Your task to perform on an android device: Show me productivity apps on the Play Store Image 0: 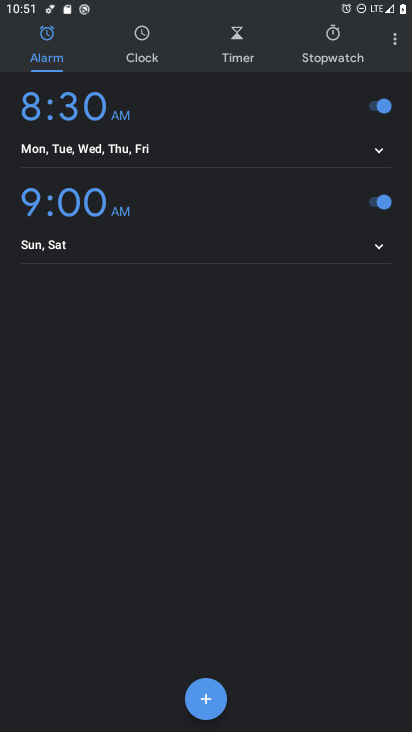
Step 0: press home button
Your task to perform on an android device: Show me productivity apps on the Play Store Image 1: 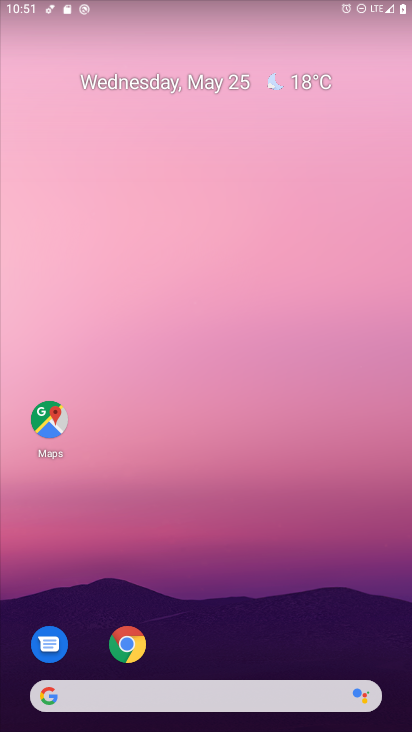
Step 1: drag from (202, 663) to (271, 41)
Your task to perform on an android device: Show me productivity apps on the Play Store Image 2: 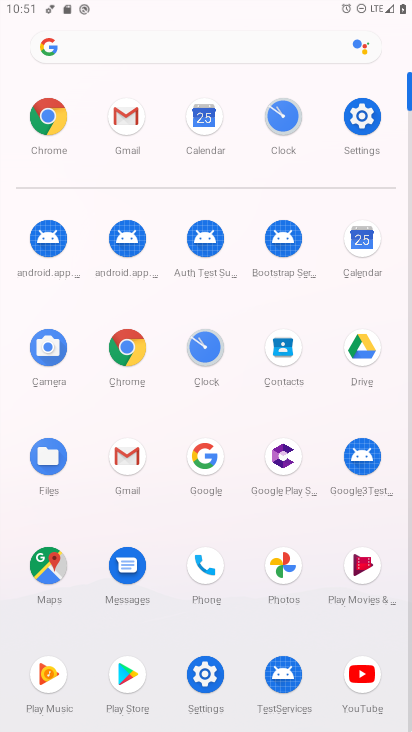
Step 2: click (124, 665)
Your task to perform on an android device: Show me productivity apps on the Play Store Image 3: 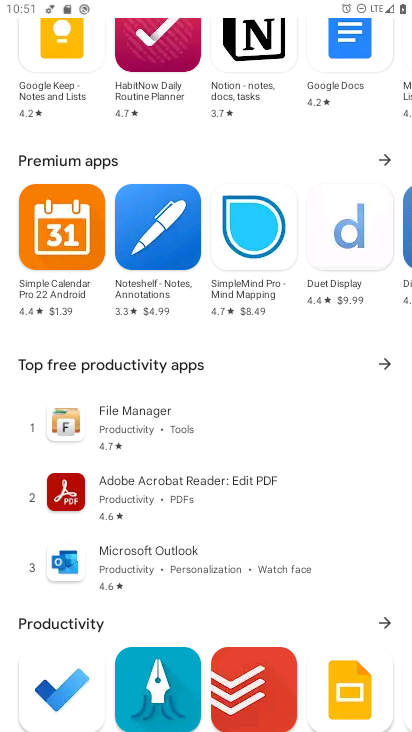
Step 3: task complete